Your task to perform on an android device: allow notifications from all sites in the chrome app Image 0: 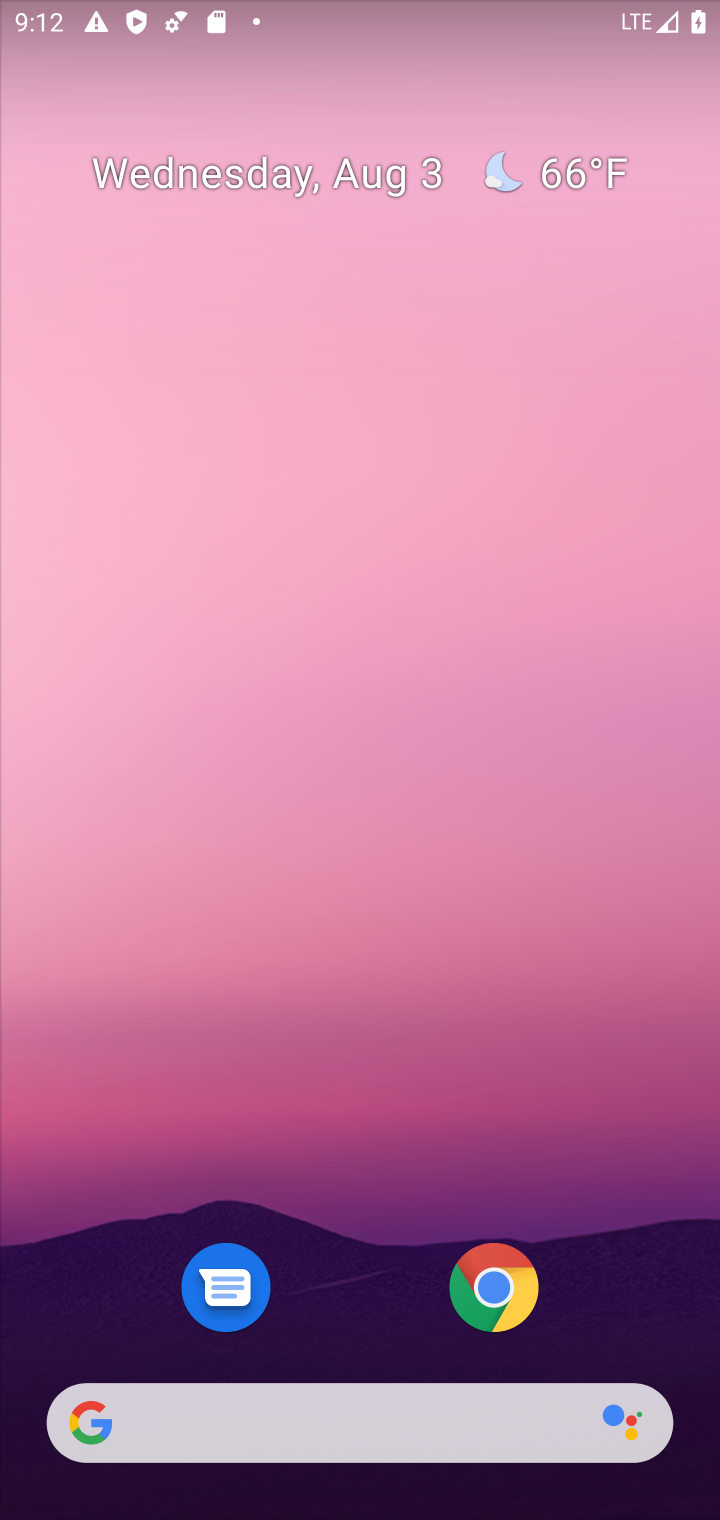
Step 0: drag from (309, 1152) to (193, 57)
Your task to perform on an android device: allow notifications from all sites in the chrome app Image 1: 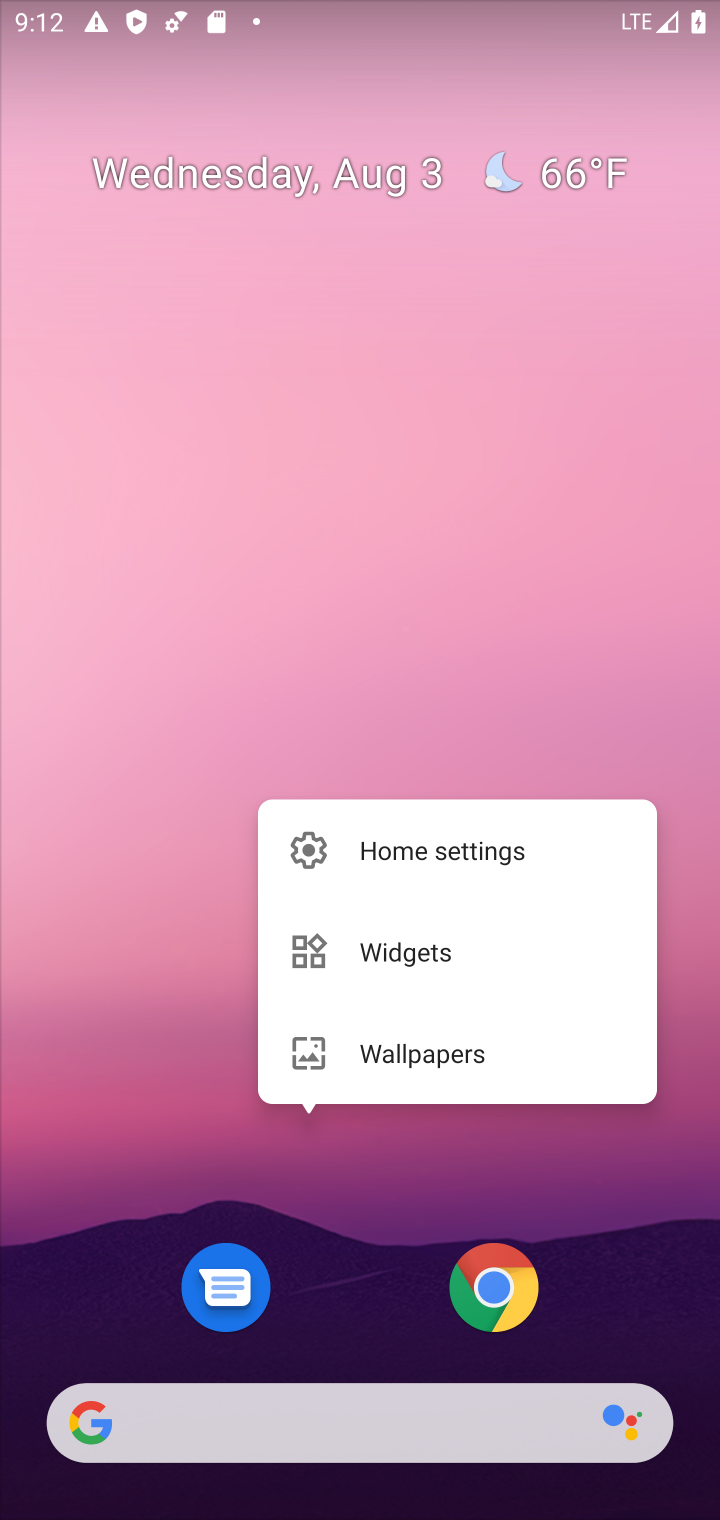
Step 1: click (394, 469)
Your task to perform on an android device: allow notifications from all sites in the chrome app Image 2: 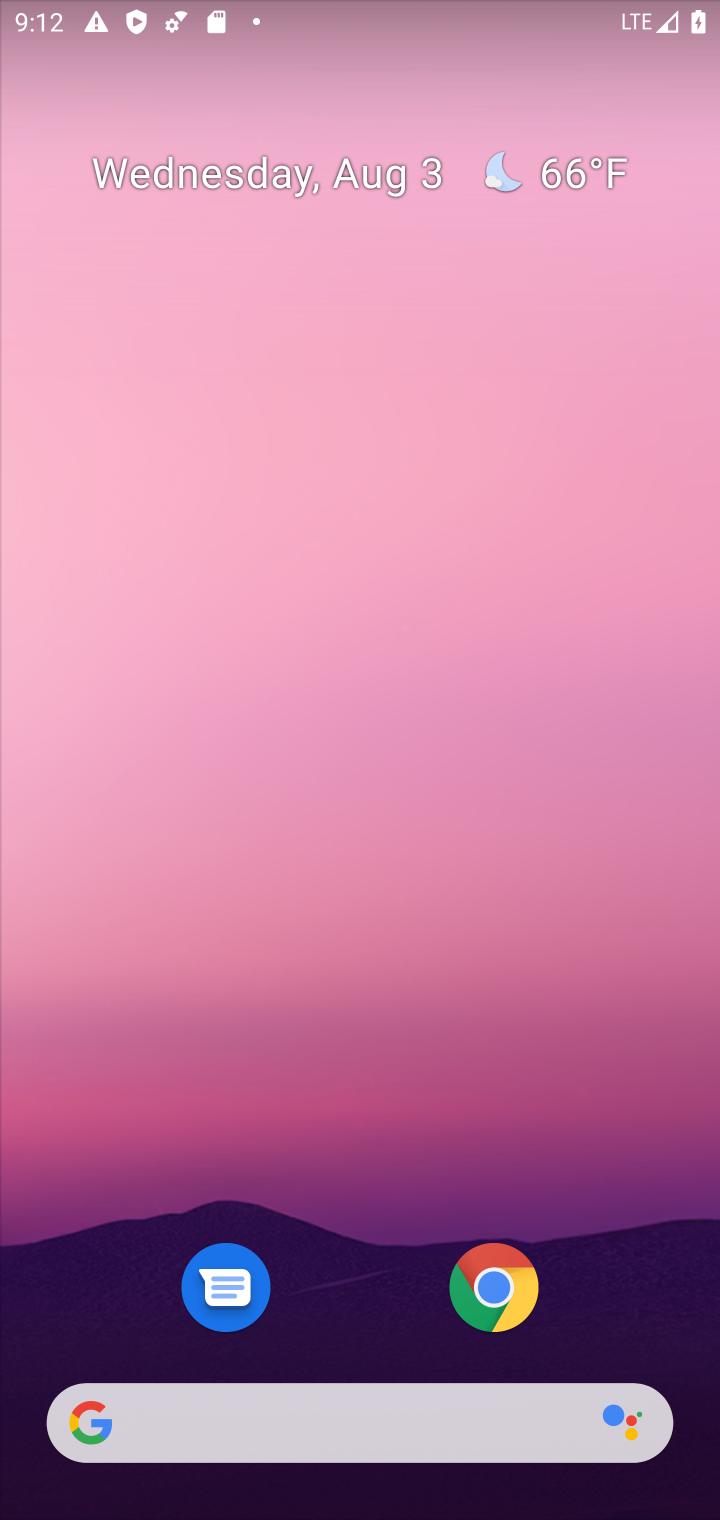
Step 2: drag from (345, 1257) to (312, 139)
Your task to perform on an android device: allow notifications from all sites in the chrome app Image 3: 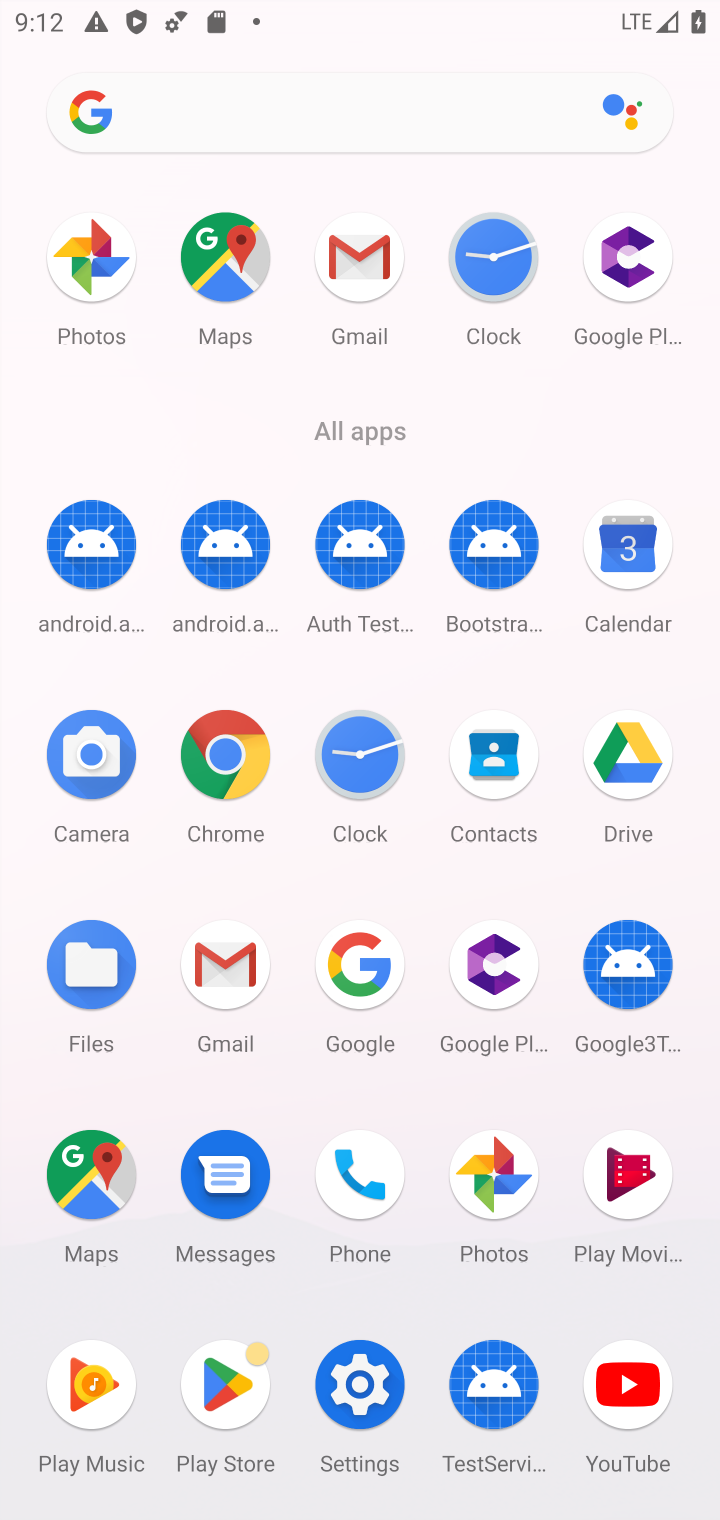
Step 3: click (208, 744)
Your task to perform on an android device: allow notifications from all sites in the chrome app Image 4: 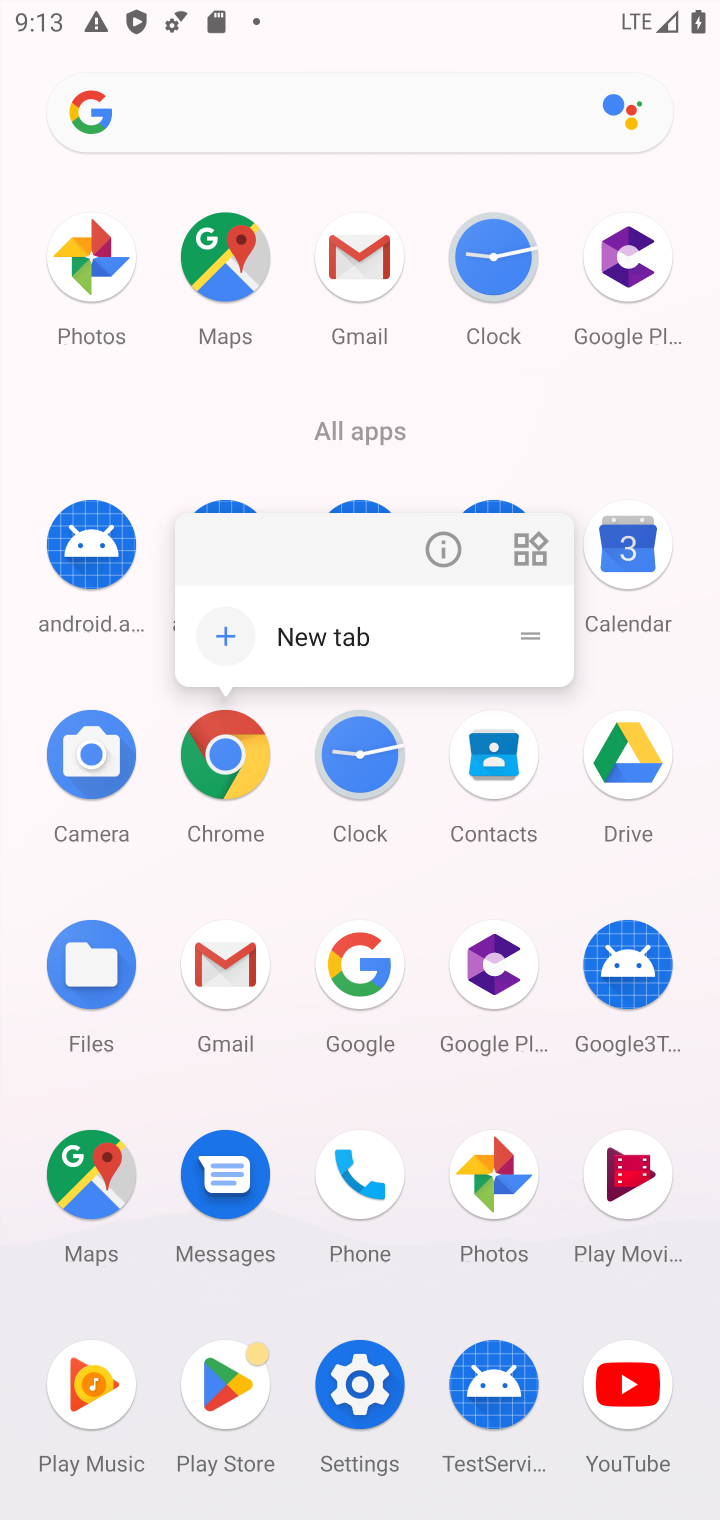
Step 4: click (217, 741)
Your task to perform on an android device: allow notifications from all sites in the chrome app Image 5: 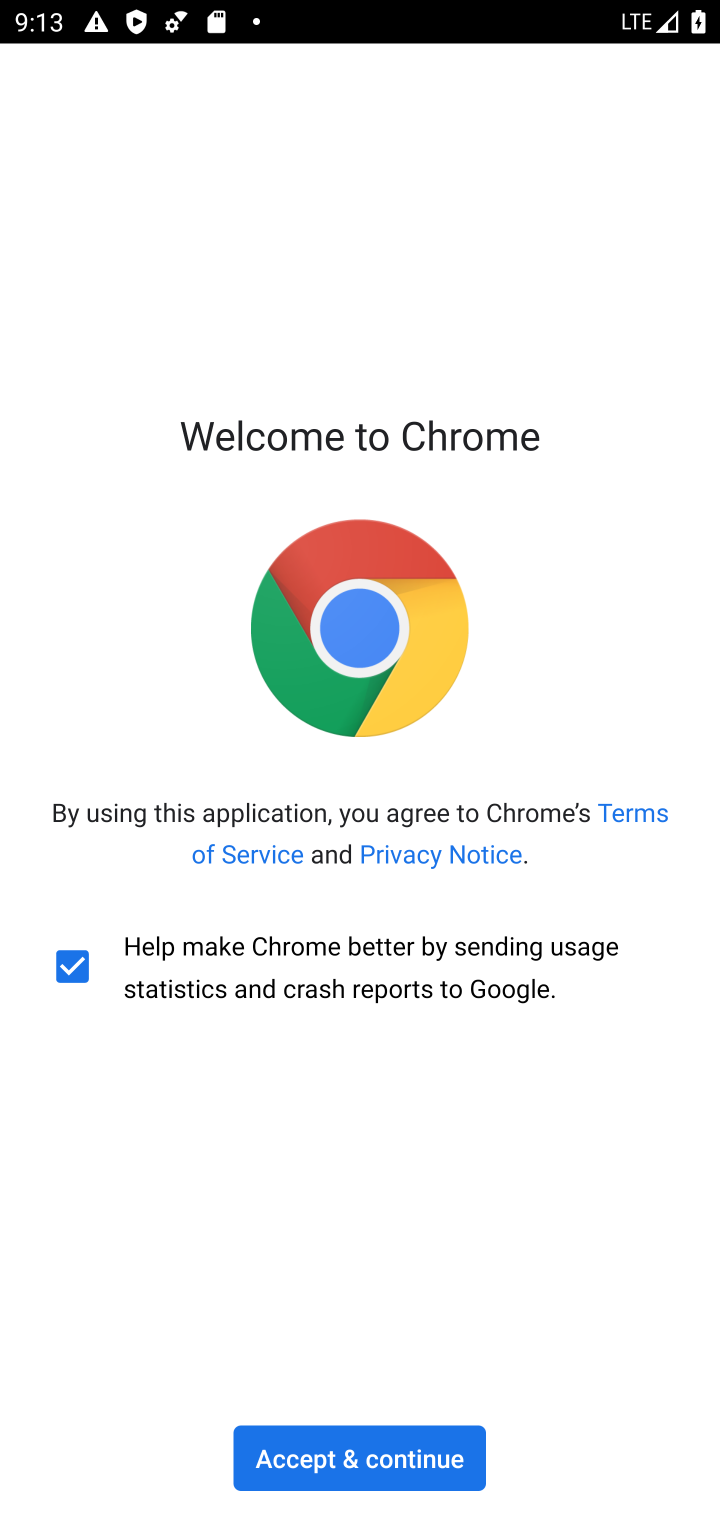
Step 5: click (378, 1456)
Your task to perform on an android device: allow notifications from all sites in the chrome app Image 6: 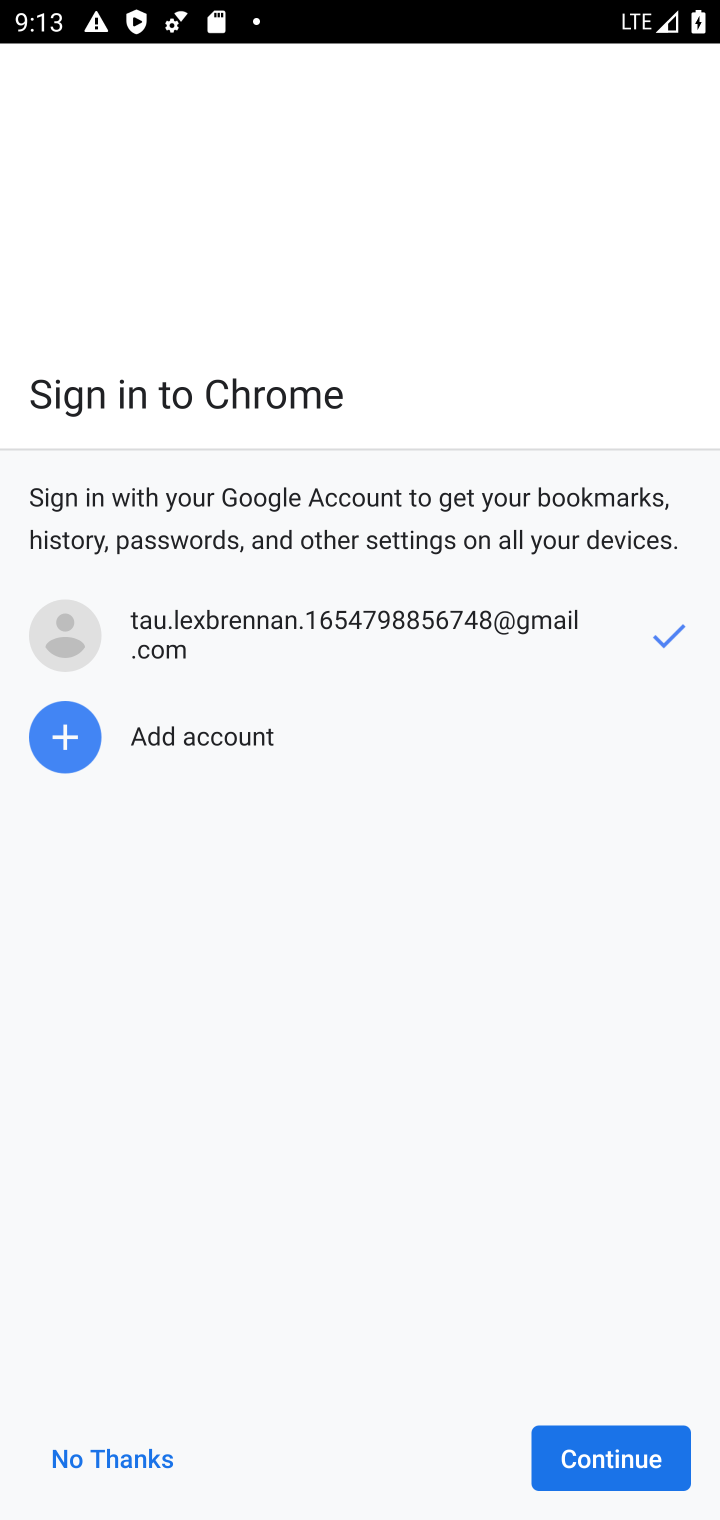
Step 6: click (634, 1436)
Your task to perform on an android device: allow notifications from all sites in the chrome app Image 7: 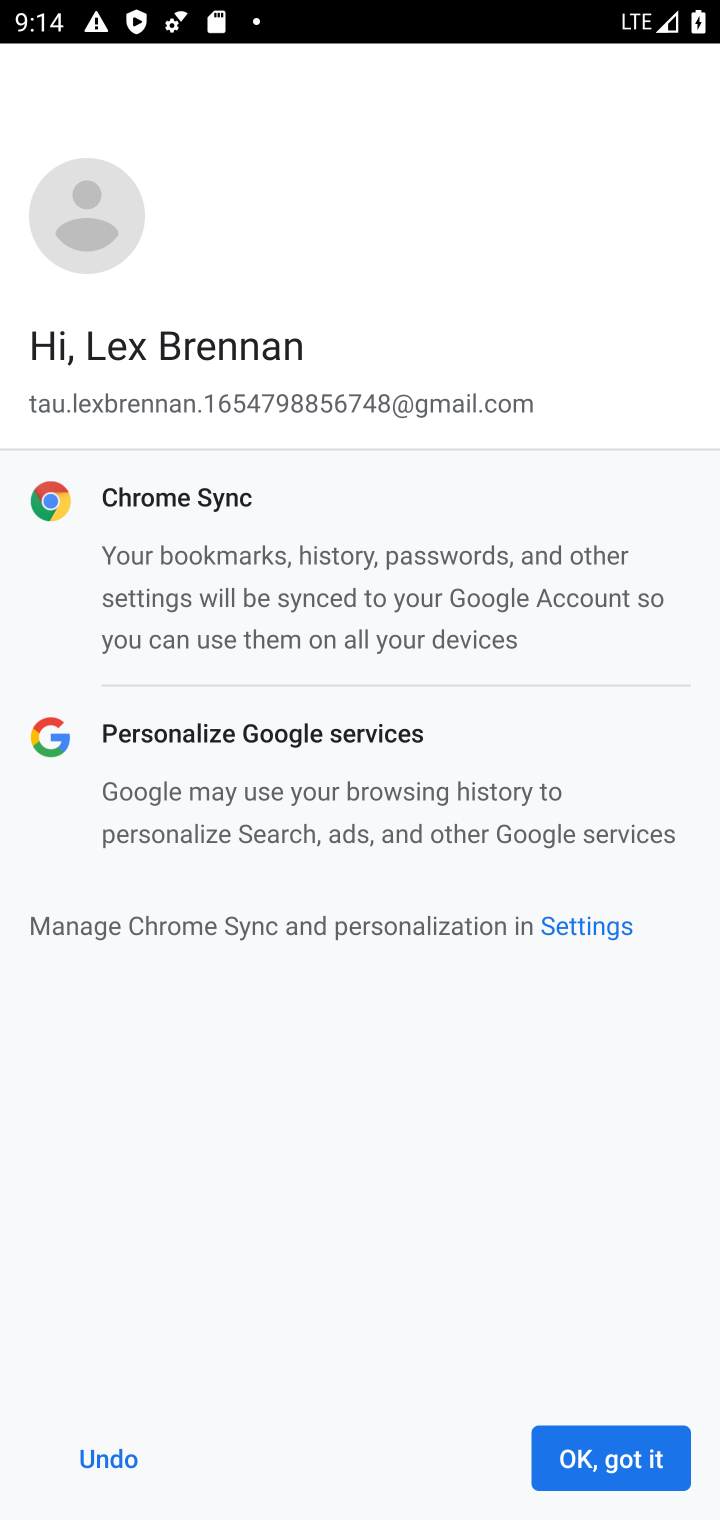
Step 7: click (612, 1452)
Your task to perform on an android device: allow notifications from all sites in the chrome app Image 8: 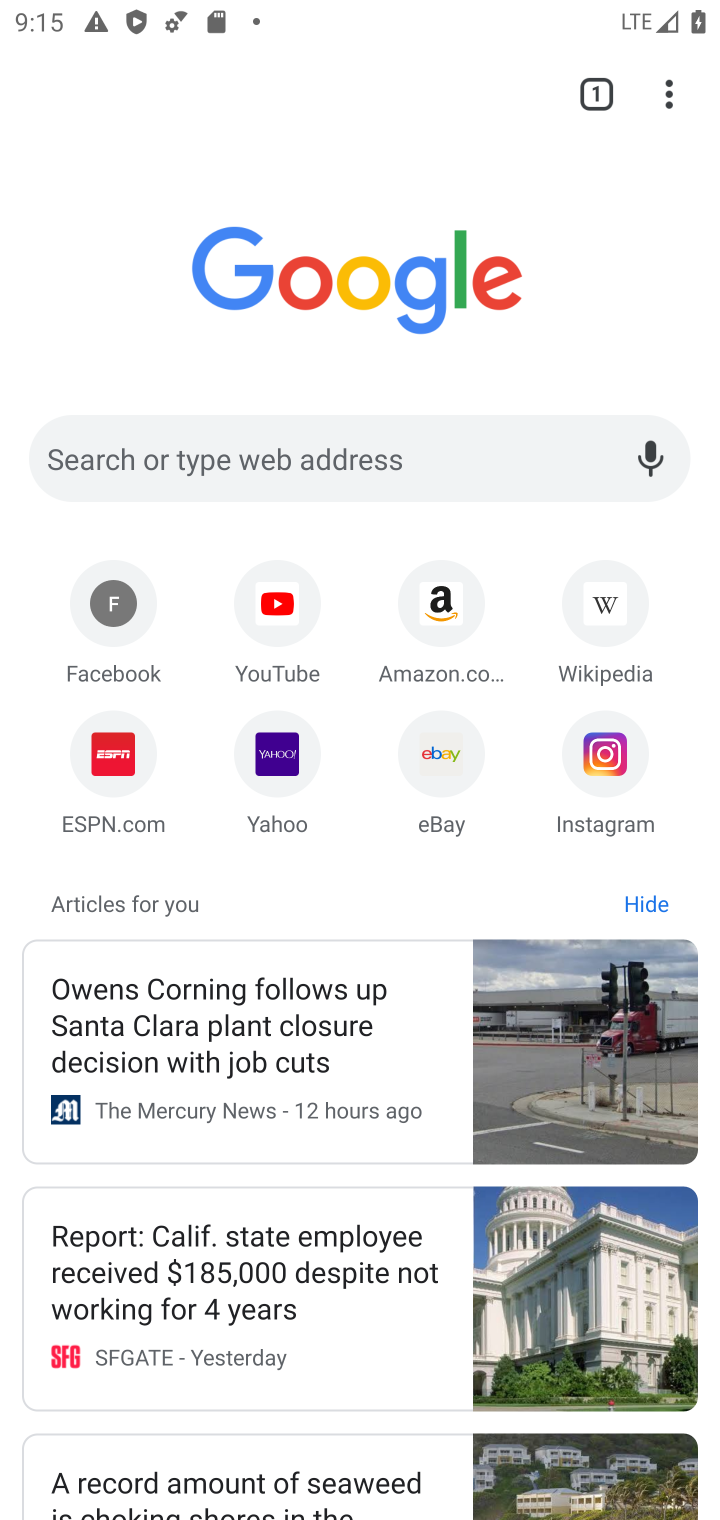
Step 8: drag from (668, 88) to (329, 777)
Your task to perform on an android device: allow notifications from all sites in the chrome app Image 9: 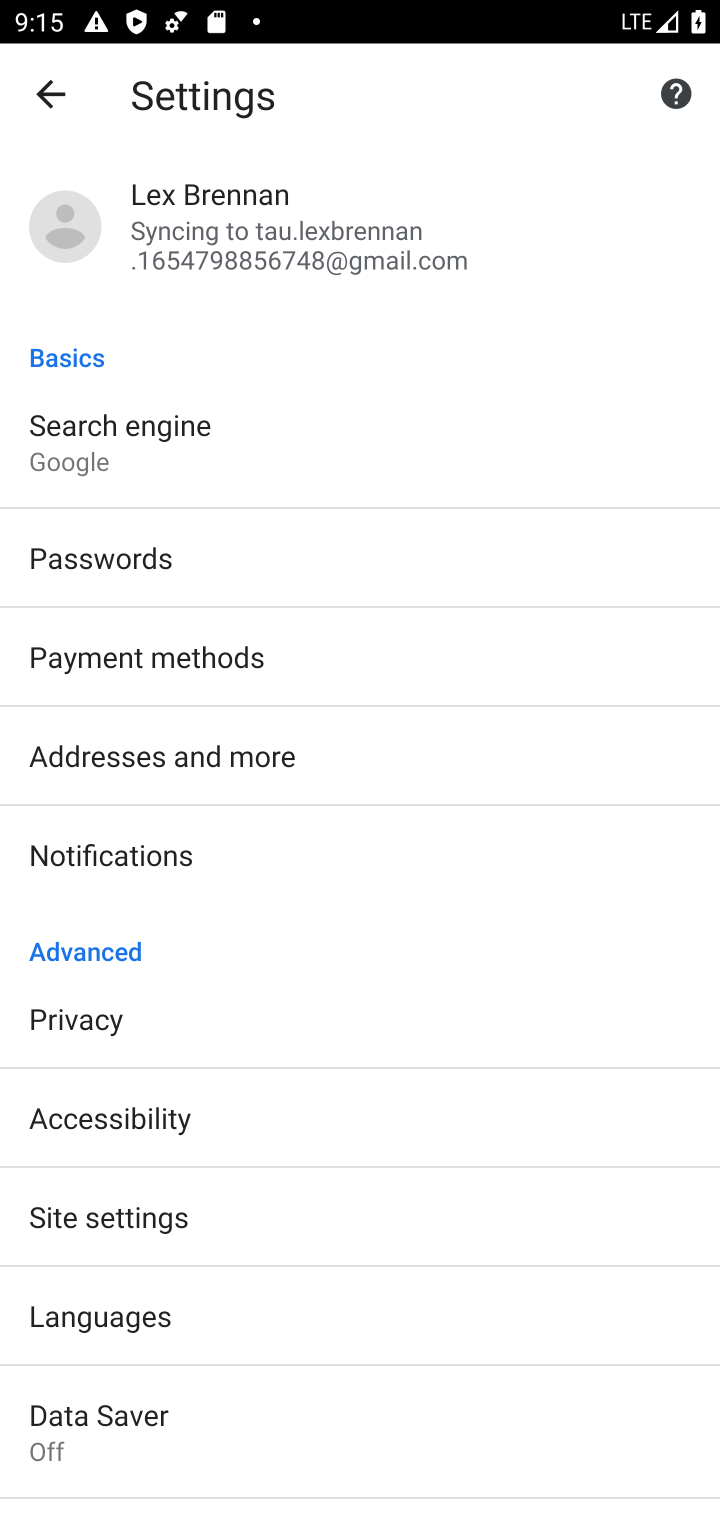
Step 9: click (194, 1212)
Your task to perform on an android device: allow notifications from all sites in the chrome app Image 10: 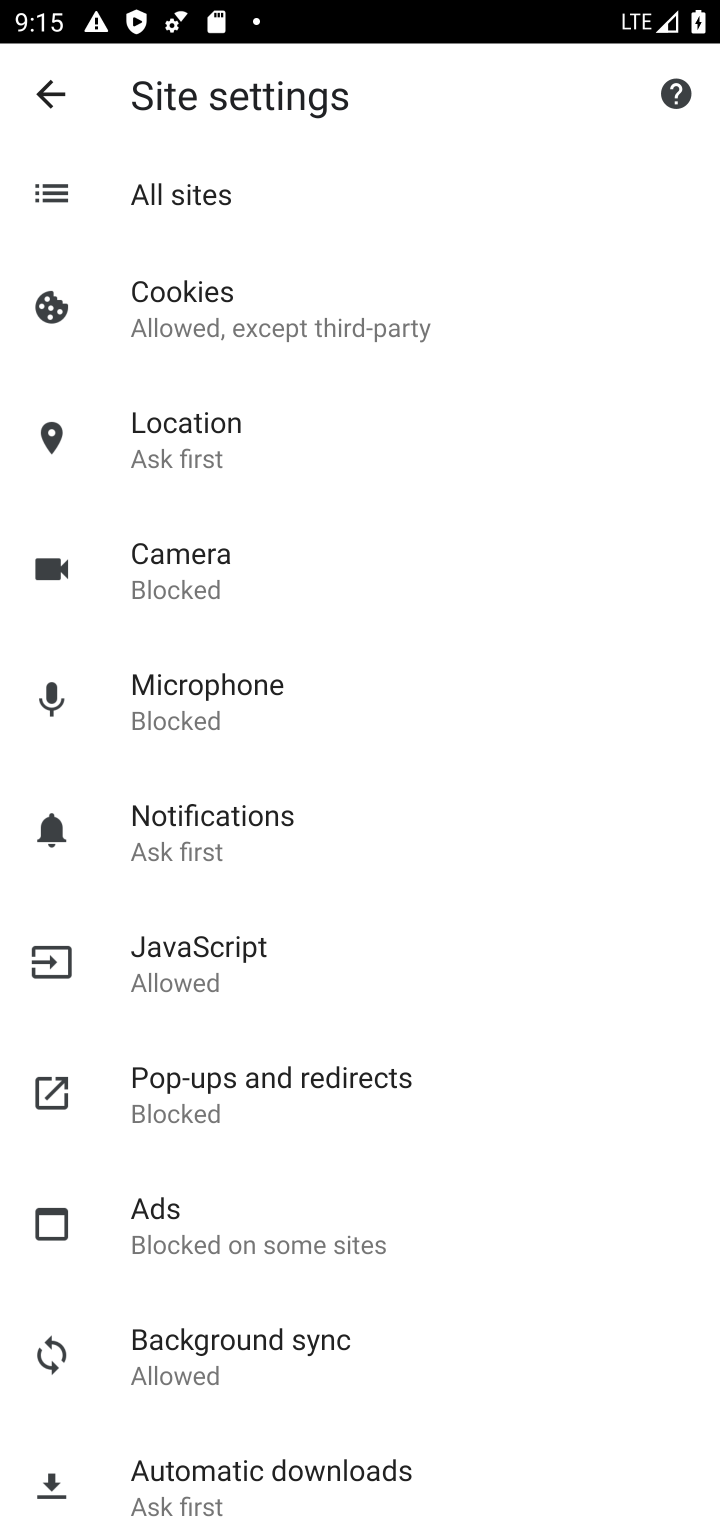
Step 10: click (166, 194)
Your task to perform on an android device: allow notifications from all sites in the chrome app Image 11: 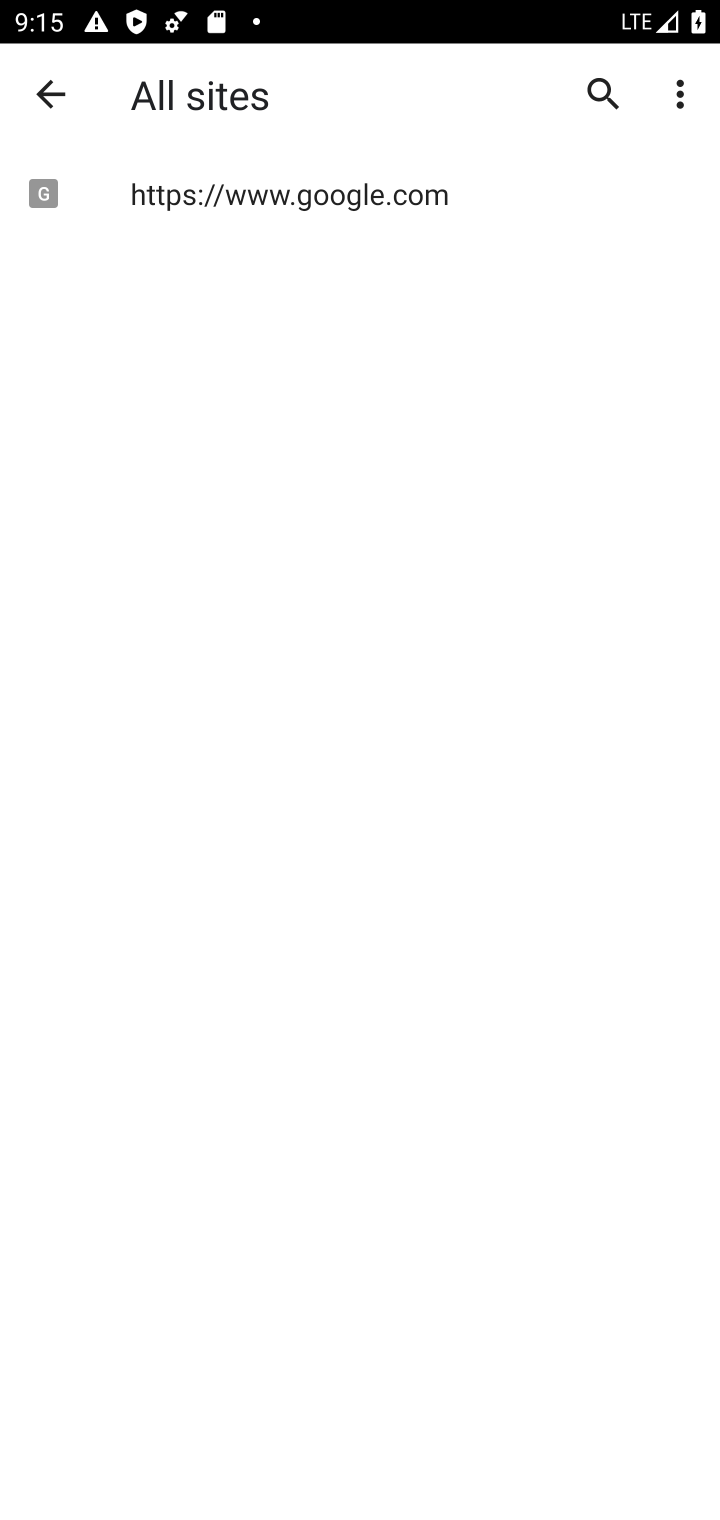
Step 11: click (290, 197)
Your task to perform on an android device: allow notifications from all sites in the chrome app Image 12: 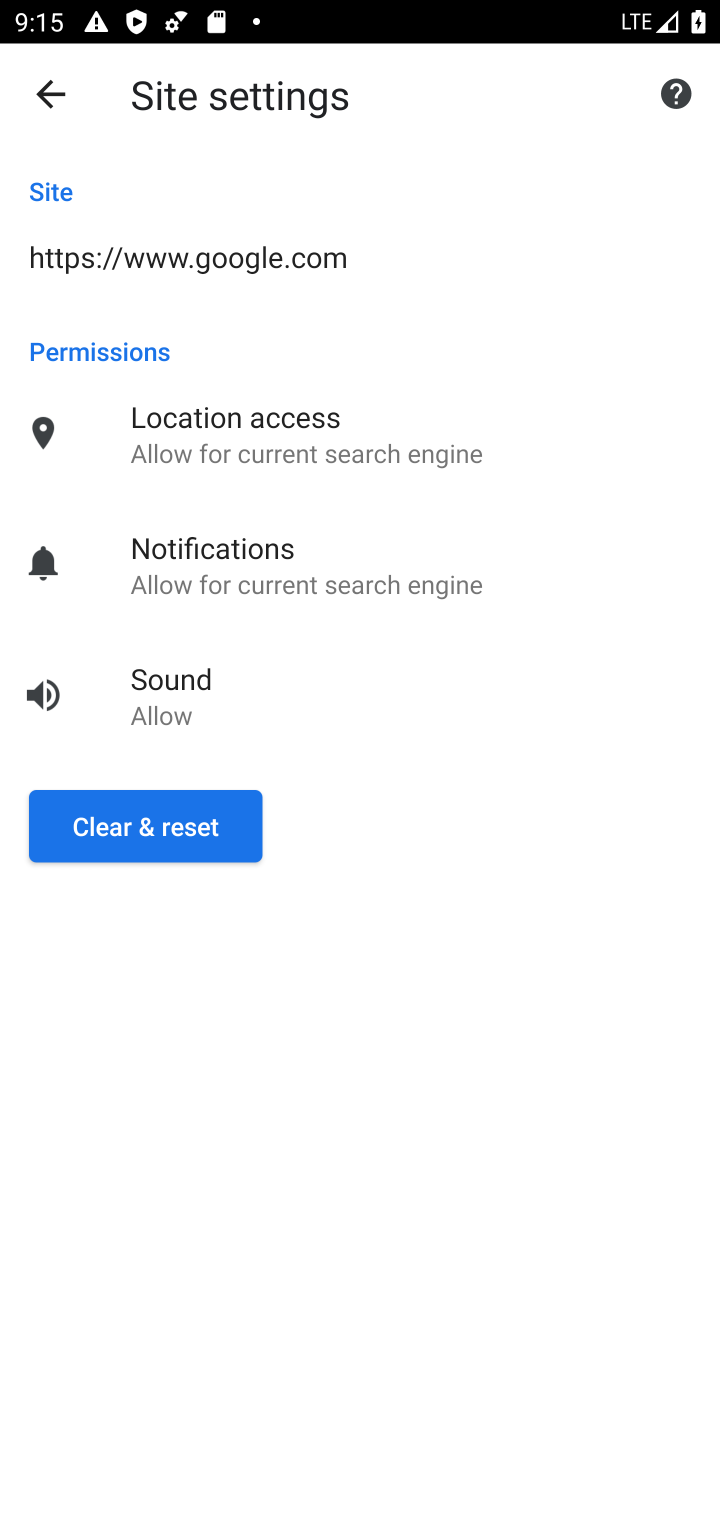
Step 12: click (264, 562)
Your task to perform on an android device: allow notifications from all sites in the chrome app Image 13: 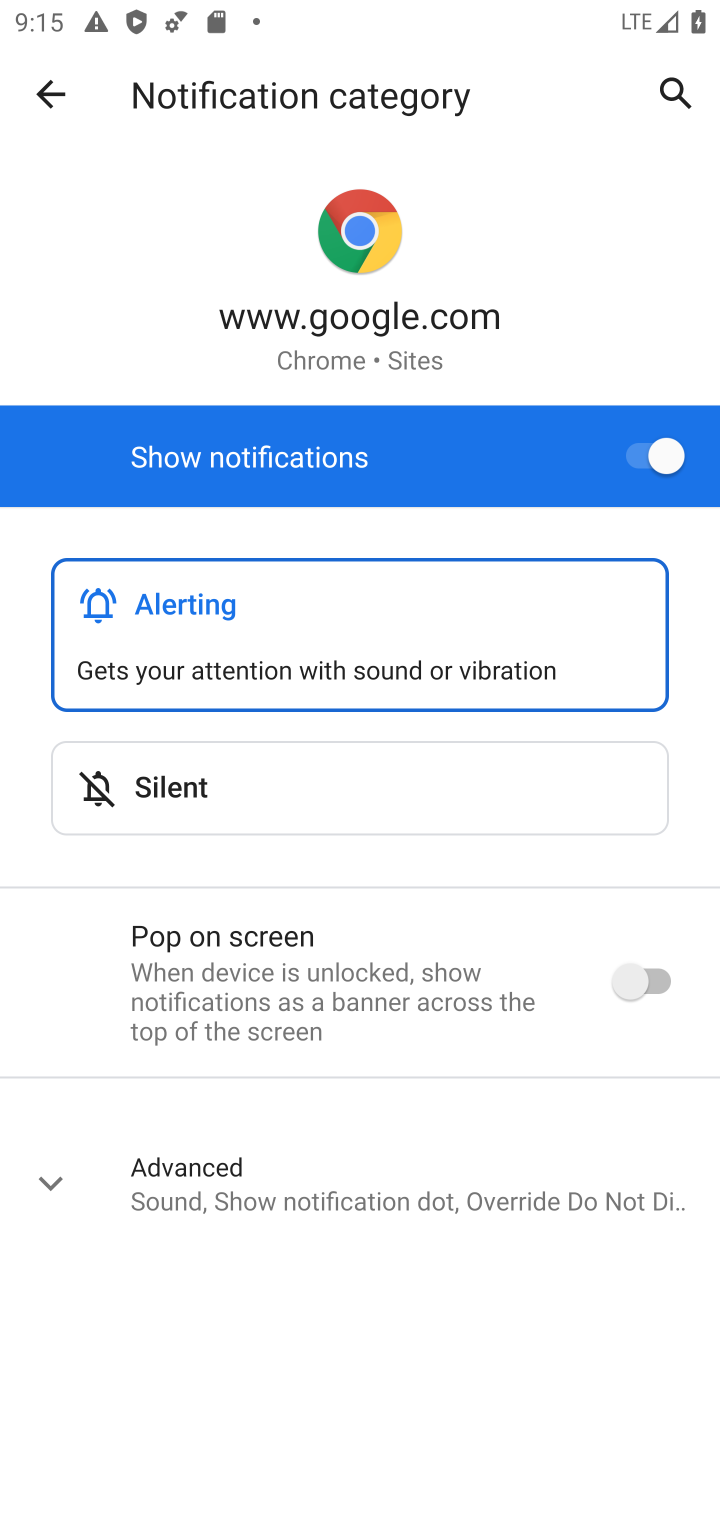
Step 13: task complete